Your task to perform on an android device: Open Youtube and go to the subscriptions tab Image 0: 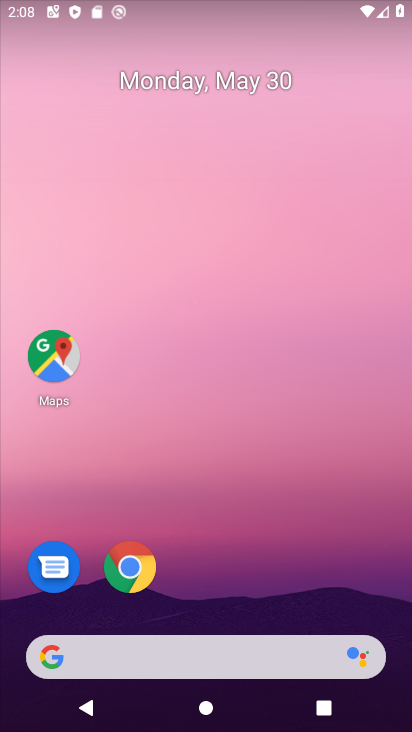
Step 0: drag from (193, 595) to (320, 23)
Your task to perform on an android device: Open Youtube and go to the subscriptions tab Image 1: 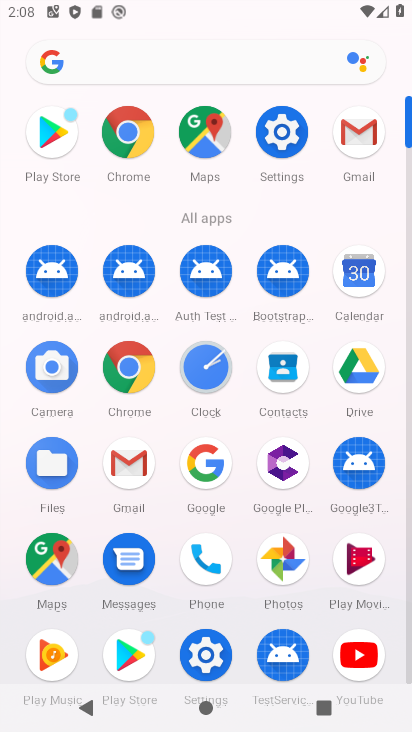
Step 1: click (372, 664)
Your task to perform on an android device: Open Youtube and go to the subscriptions tab Image 2: 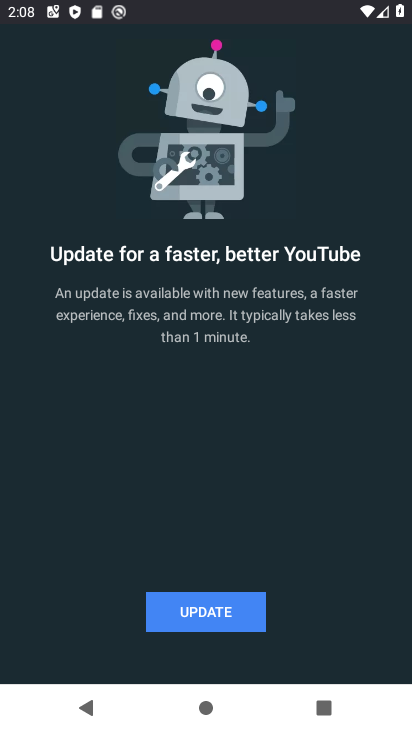
Step 2: click (208, 611)
Your task to perform on an android device: Open Youtube and go to the subscriptions tab Image 3: 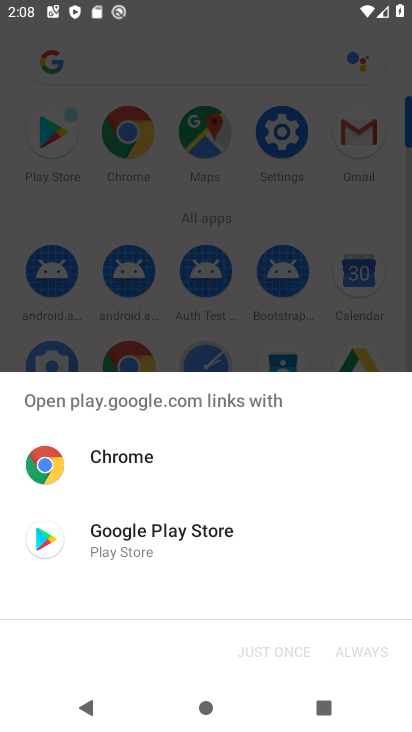
Step 3: click (166, 541)
Your task to perform on an android device: Open Youtube and go to the subscriptions tab Image 4: 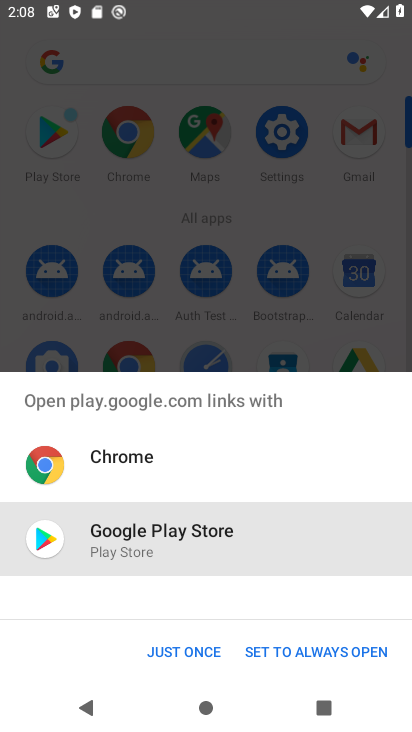
Step 4: click (184, 651)
Your task to perform on an android device: Open Youtube and go to the subscriptions tab Image 5: 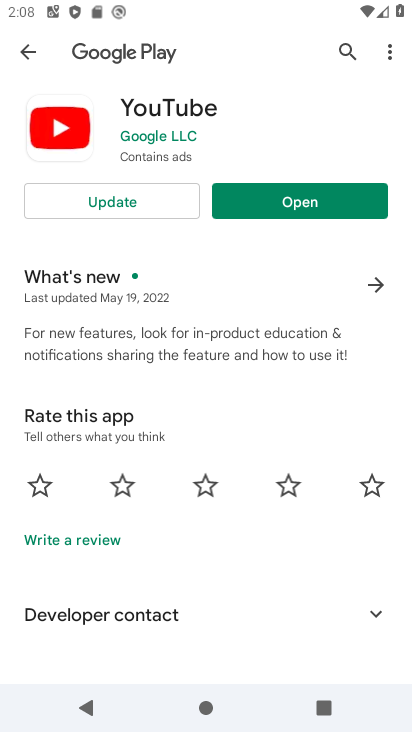
Step 5: click (116, 202)
Your task to perform on an android device: Open Youtube and go to the subscriptions tab Image 6: 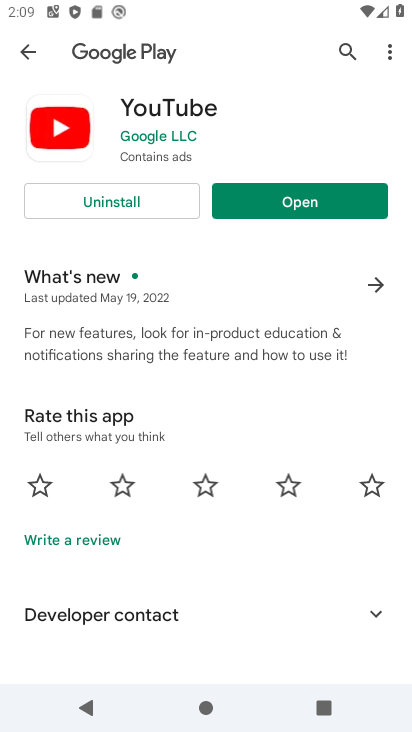
Step 6: click (267, 212)
Your task to perform on an android device: Open Youtube and go to the subscriptions tab Image 7: 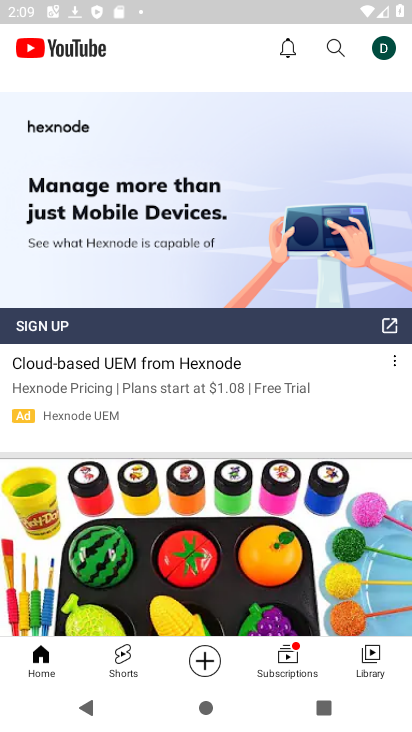
Step 7: click (295, 655)
Your task to perform on an android device: Open Youtube and go to the subscriptions tab Image 8: 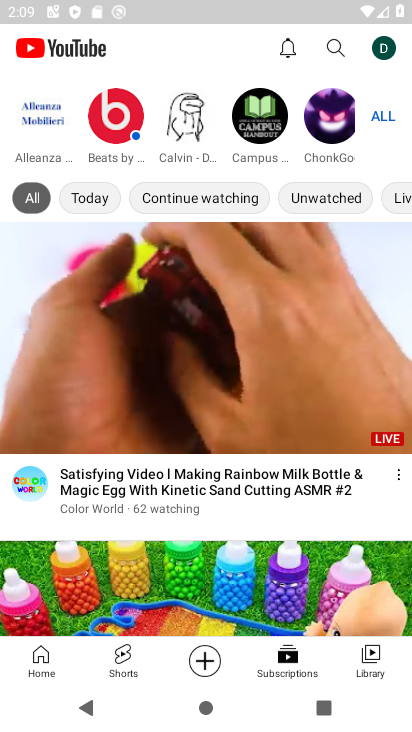
Step 8: task complete